Your task to perform on an android device: set the timer Image 0: 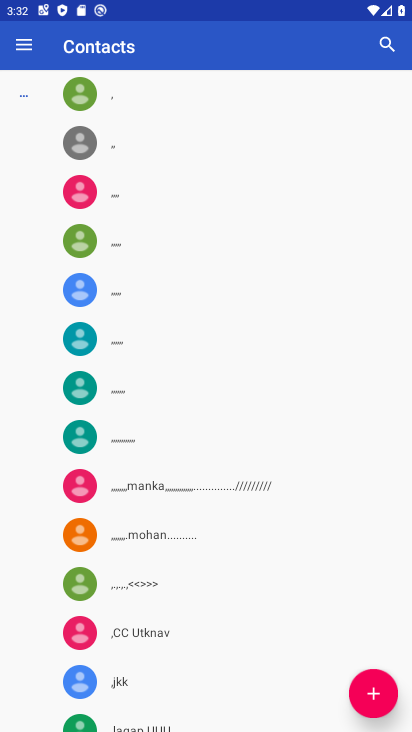
Step 0: press home button
Your task to perform on an android device: set the timer Image 1: 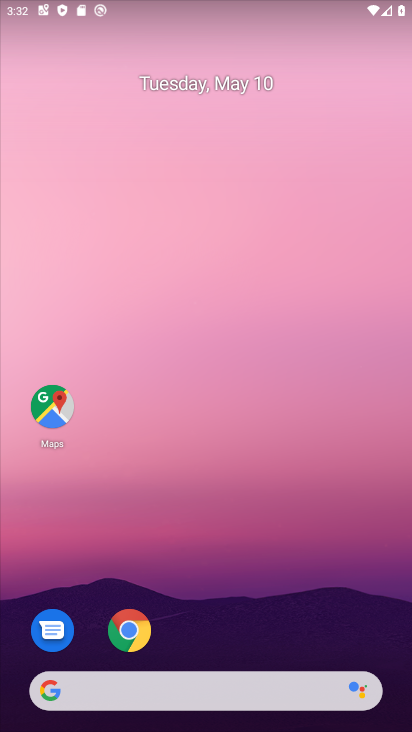
Step 1: drag from (206, 649) to (299, 53)
Your task to perform on an android device: set the timer Image 2: 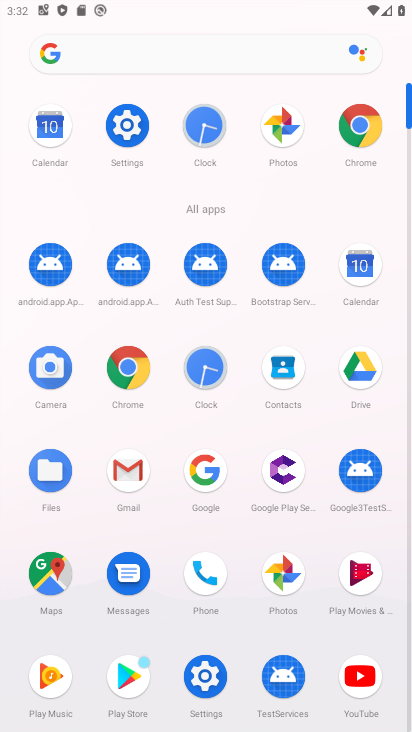
Step 2: click (210, 372)
Your task to perform on an android device: set the timer Image 3: 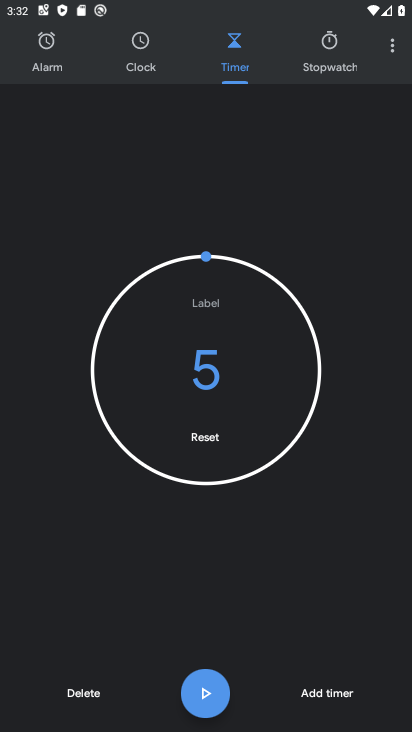
Step 3: click (207, 691)
Your task to perform on an android device: set the timer Image 4: 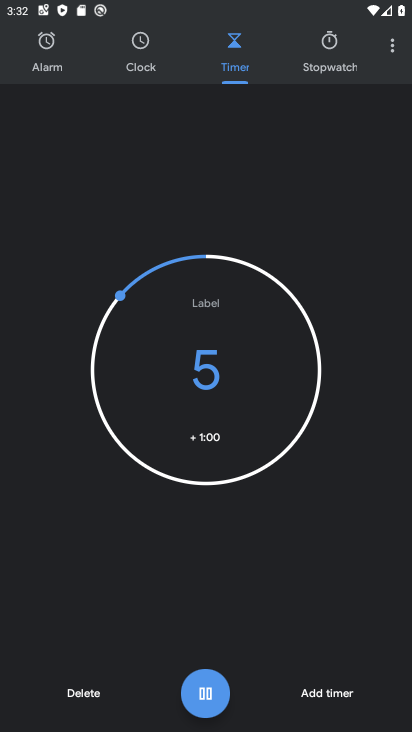
Step 4: task complete